Your task to perform on an android device: Open network settings Image 0: 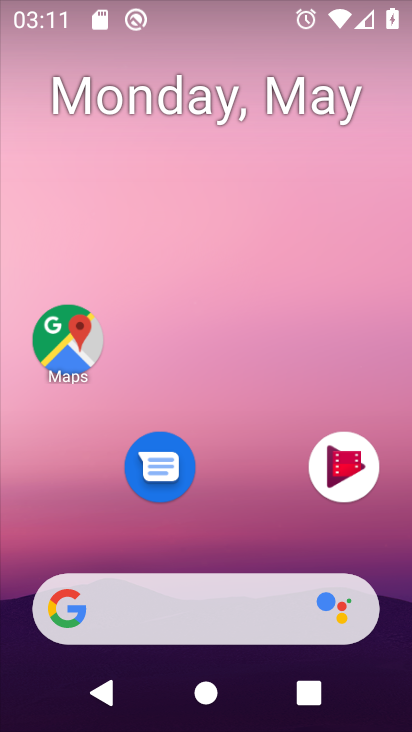
Step 0: drag from (220, 532) to (257, 218)
Your task to perform on an android device: Open network settings Image 1: 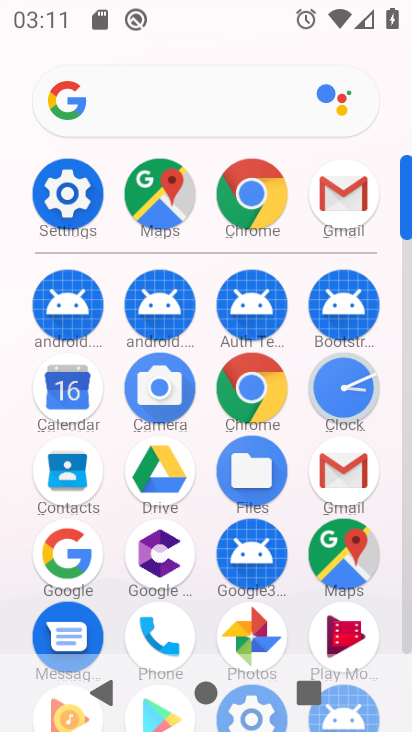
Step 1: click (54, 208)
Your task to perform on an android device: Open network settings Image 2: 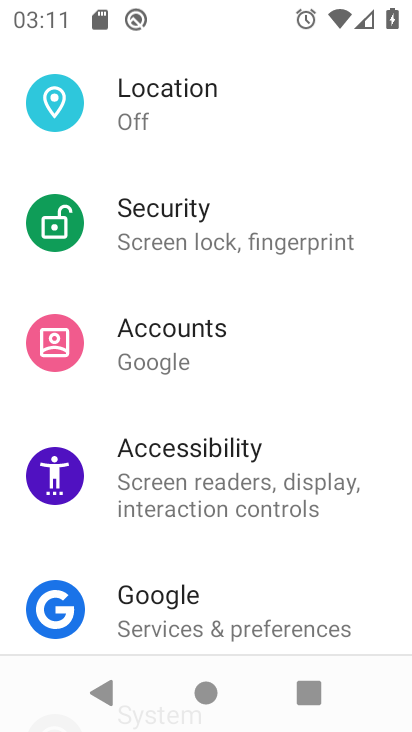
Step 2: drag from (254, 133) to (237, 530)
Your task to perform on an android device: Open network settings Image 3: 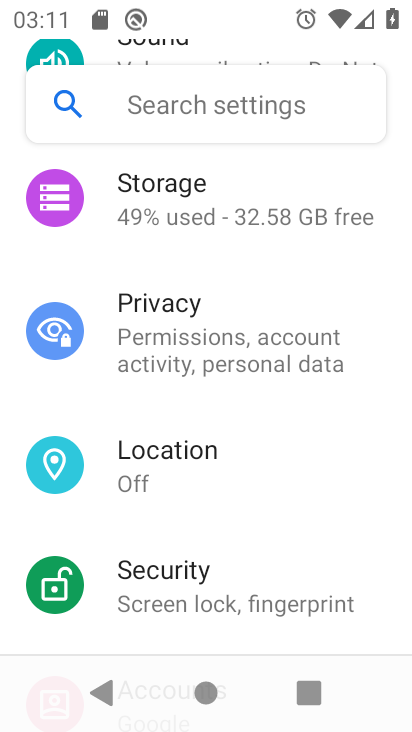
Step 3: drag from (236, 154) to (202, 593)
Your task to perform on an android device: Open network settings Image 4: 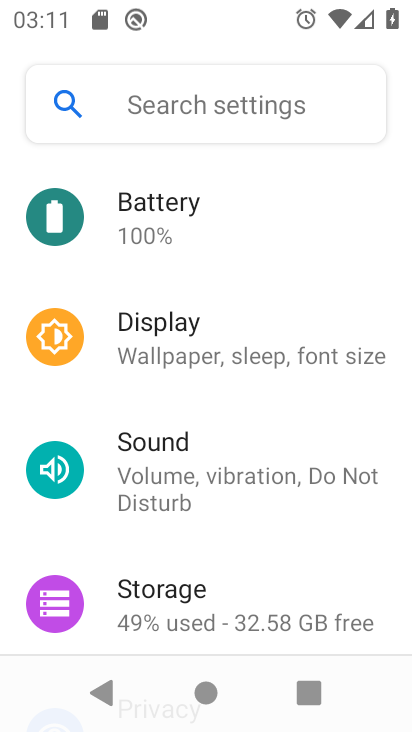
Step 4: drag from (206, 477) to (184, 634)
Your task to perform on an android device: Open network settings Image 5: 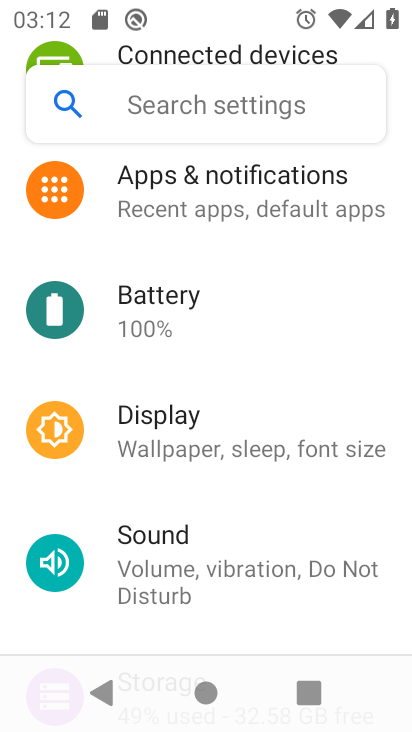
Step 5: drag from (167, 211) to (203, 500)
Your task to perform on an android device: Open network settings Image 6: 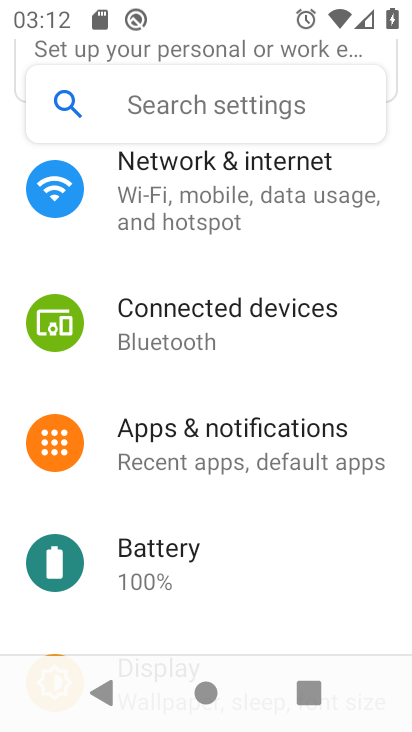
Step 6: click (276, 157)
Your task to perform on an android device: Open network settings Image 7: 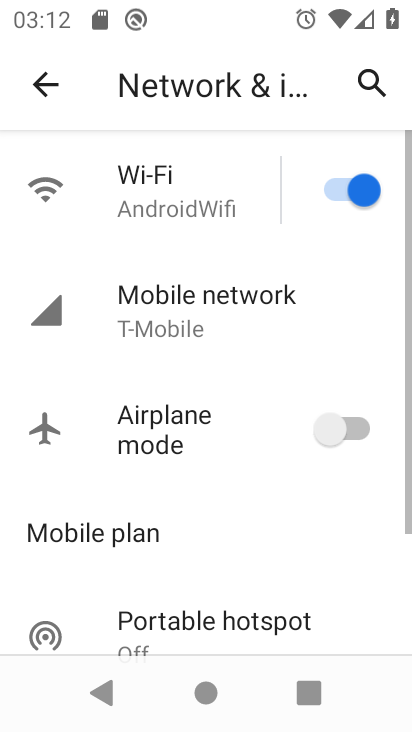
Step 7: task complete